Your task to perform on an android device: turn off data saver in the chrome app Image 0: 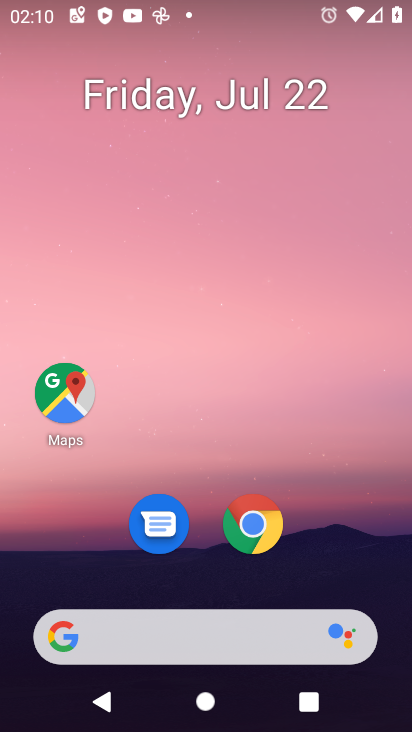
Step 0: click (256, 539)
Your task to perform on an android device: turn off data saver in the chrome app Image 1: 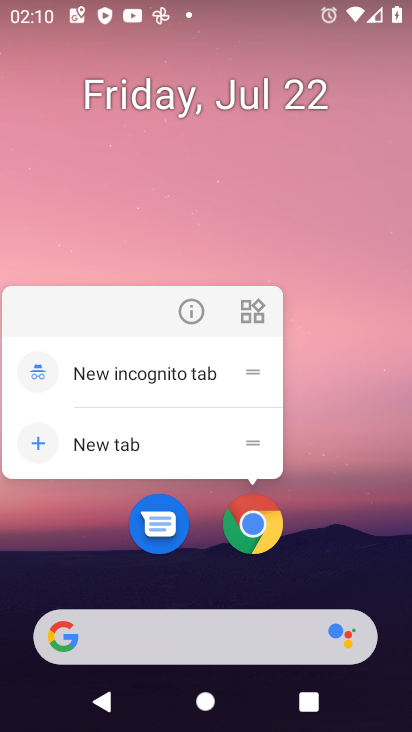
Step 1: click (262, 523)
Your task to perform on an android device: turn off data saver in the chrome app Image 2: 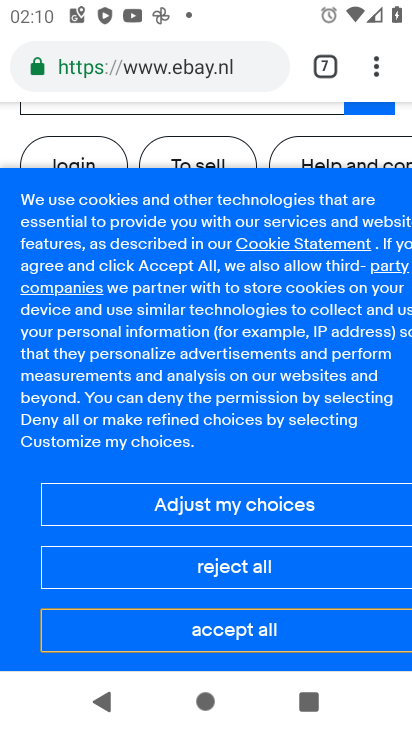
Step 2: drag from (376, 64) to (241, 526)
Your task to perform on an android device: turn off data saver in the chrome app Image 3: 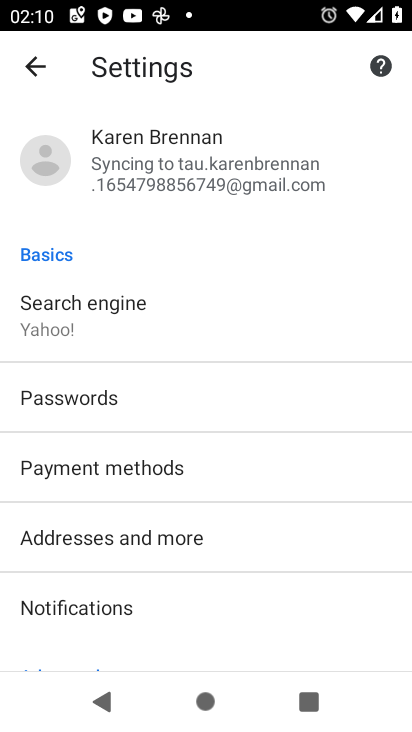
Step 3: drag from (217, 511) to (225, 249)
Your task to perform on an android device: turn off data saver in the chrome app Image 4: 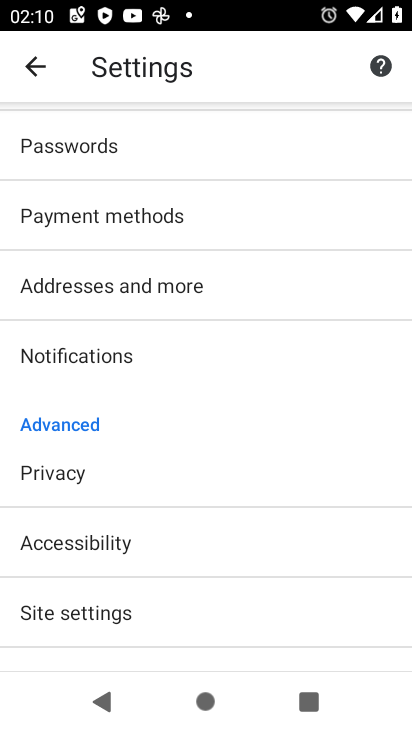
Step 4: drag from (224, 613) to (271, 324)
Your task to perform on an android device: turn off data saver in the chrome app Image 5: 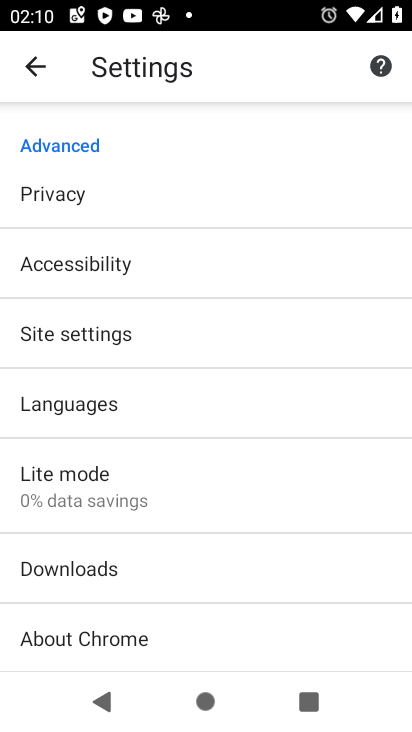
Step 5: click (121, 489)
Your task to perform on an android device: turn off data saver in the chrome app Image 6: 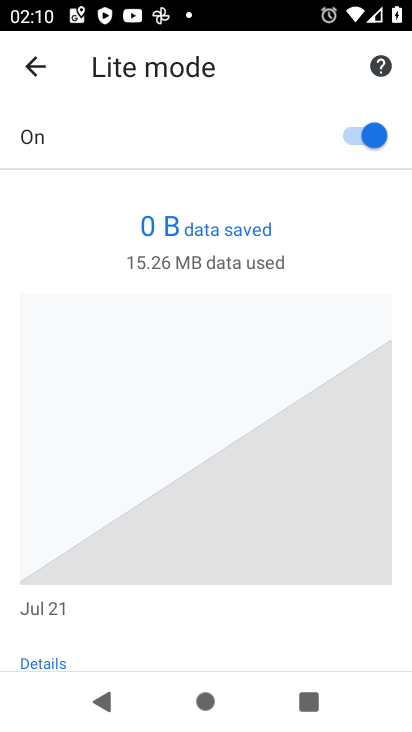
Step 6: click (358, 129)
Your task to perform on an android device: turn off data saver in the chrome app Image 7: 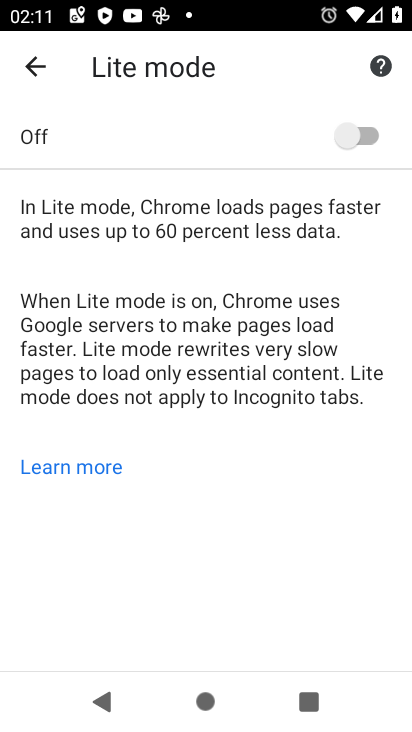
Step 7: task complete